Your task to perform on an android device: Go to Reddit.com Image 0: 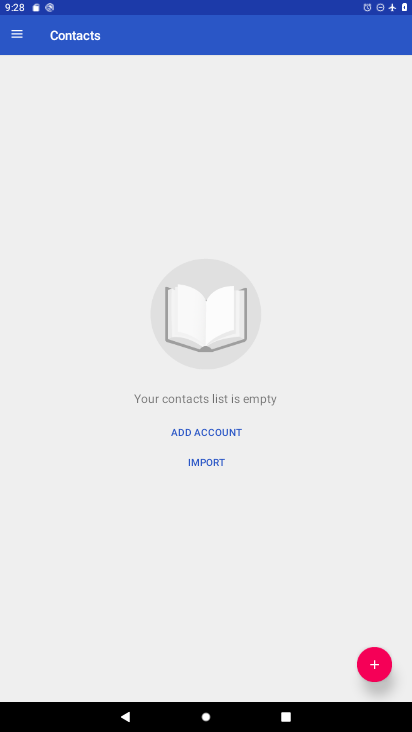
Step 0: press home button
Your task to perform on an android device: Go to Reddit.com Image 1: 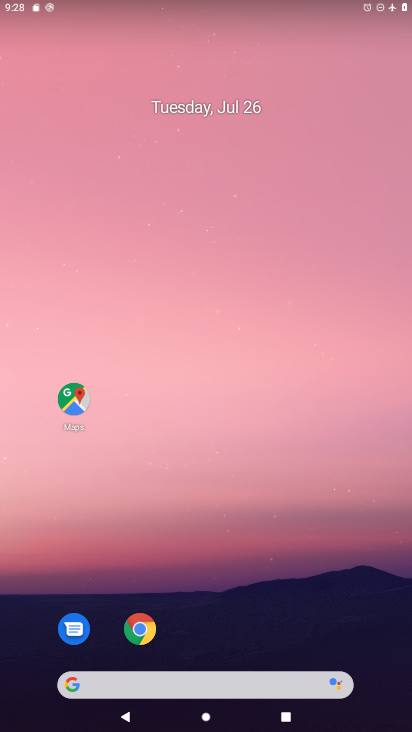
Step 1: click (151, 639)
Your task to perform on an android device: Go to Reddit.com Image 2: 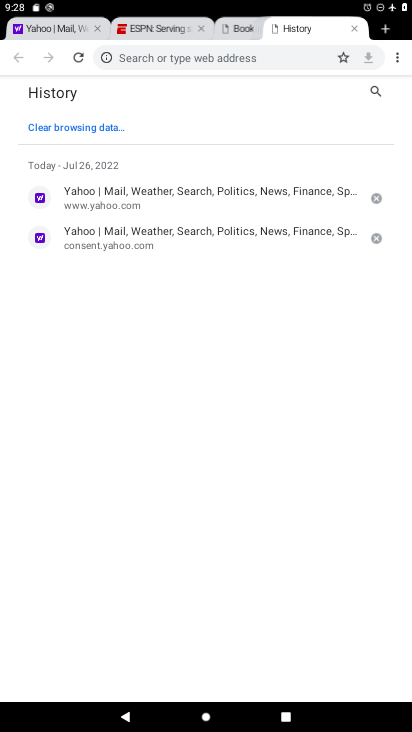
Step 2: click (378, 25)
Your task to perform on an android device: Go to Reddit.com Image 3: 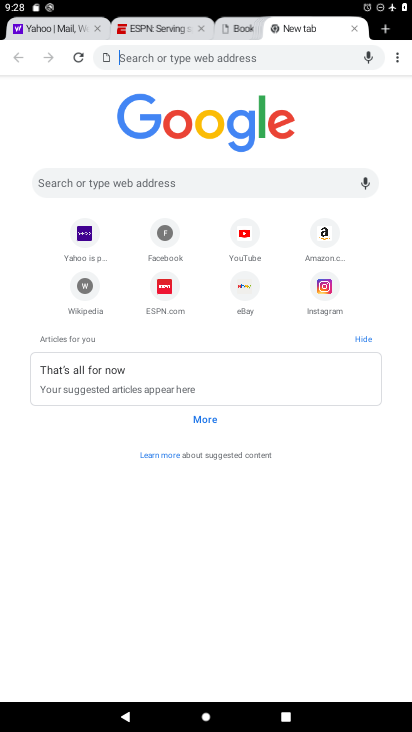
Step 3: type "Reddit.com"
Your task to perform on an android device: Go to Reddit.com Image 4: 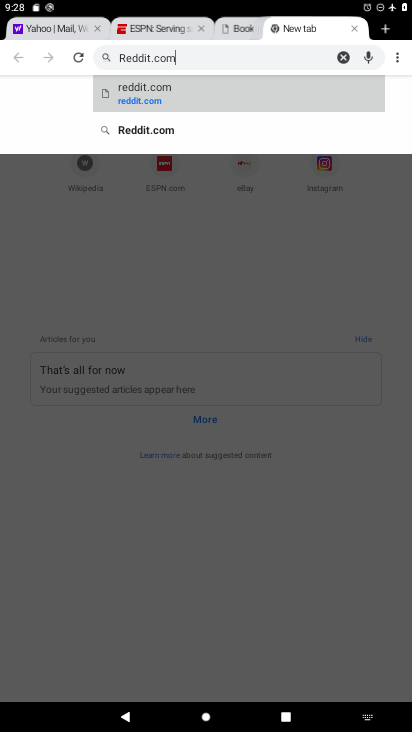
Step 4: type ""
Your task to perform on an android device: Go to Reddit.com Image 5: 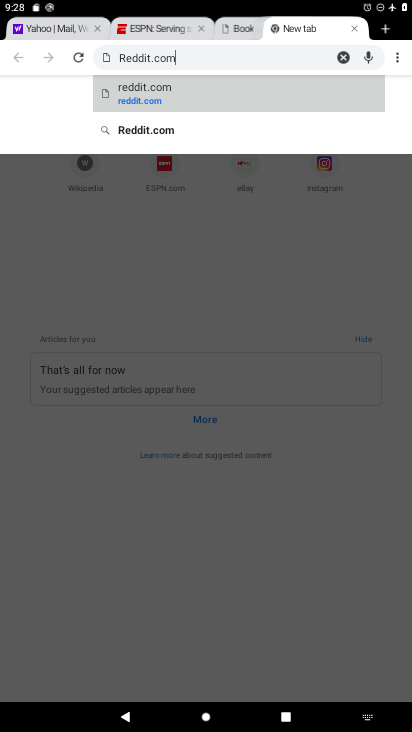
Step 5: click (171, 97)
Your task to perform on an android device: Go to Reddit.com Image 6: 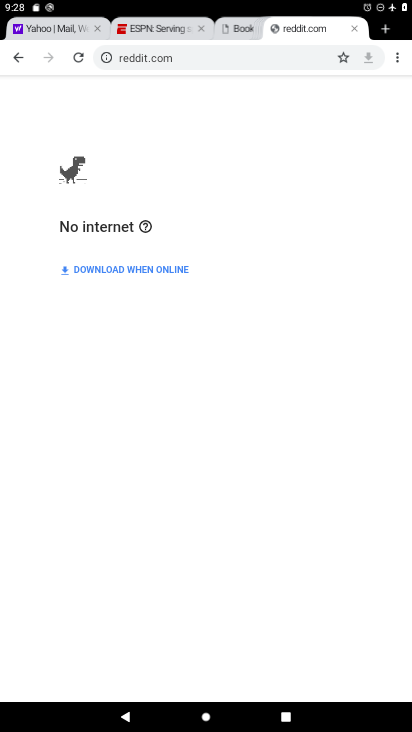
Step 6: task complete